Your task to perform on an android device: Open Google Chrome and click the shortcut for Amazon.com Image 0: 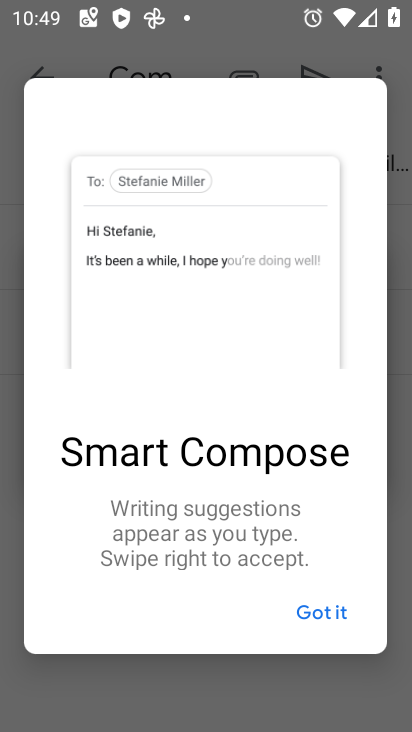
Step 0: press home button
Your task to perform on an android device: Open Google Chrome and click the shortcut for Amazon.com Image 1: 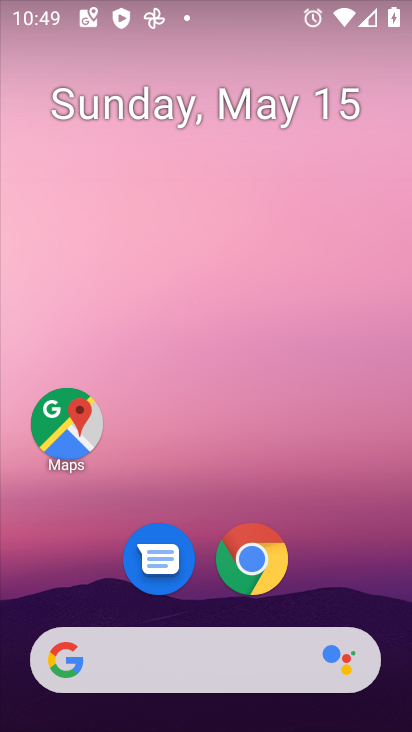
Step 1: click (258, 565)
Your task to perform on an android device: Open Google Chrome and click the shortcut for Amazon.com Image 2: 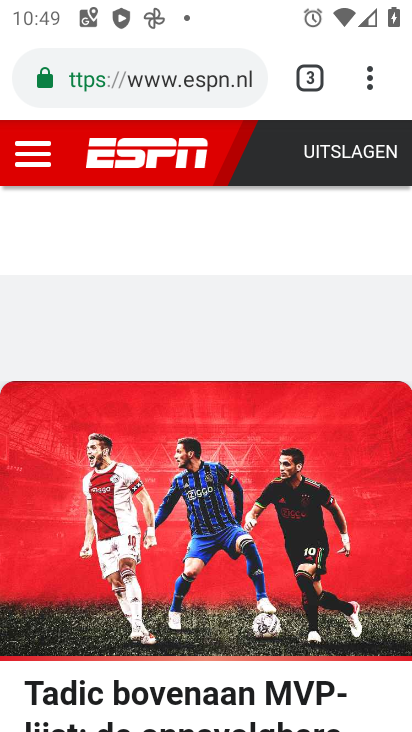
Step 2: click (318, 90)
Your task to perform on an android device: Open Google Chrome and click the shortcut for Amazon.com Image 3: 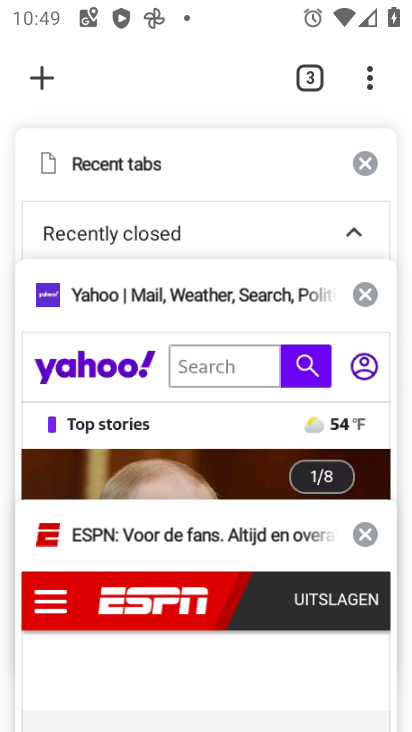
Step 3: click (56, 75)
Your task to perform on an android device: Open Google Chrome and click the shortcut for Amazon.com Image 4: 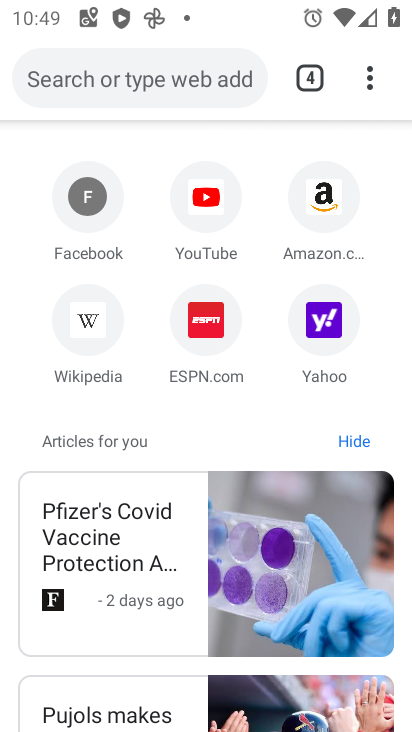
Step 4: click (340, 203)
Your task to perform on an android device: Open Google Chrome and click the shortcut for Amazon.com Image 5: 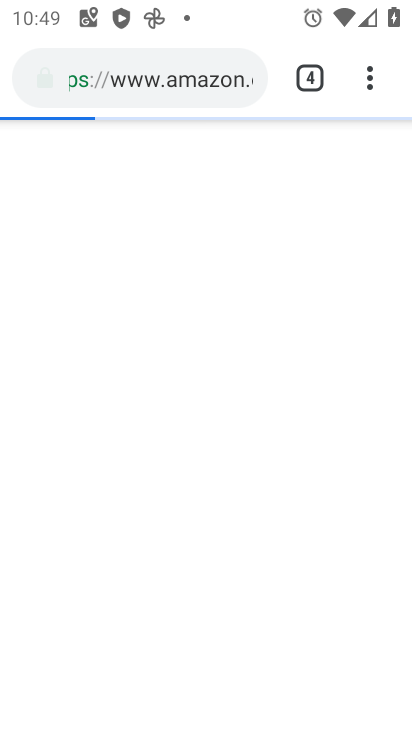
Step 5: task complete